Your task to perform on an android device: set the timer Image 0: 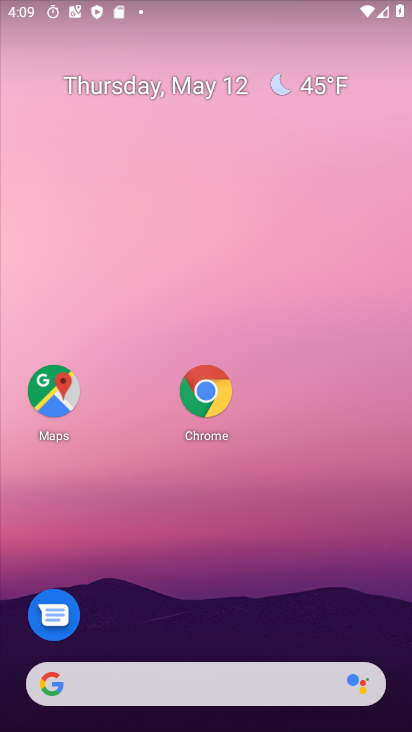
Step 0: drag from (217, 621) to (216, 82)
Your task to perform on an android device: set the timer Image 1: 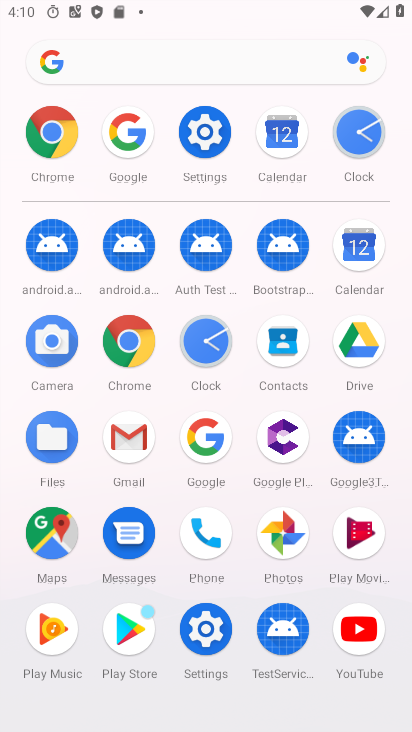
Step 1: click (362, 138)
Your task to perform on an android device: set the timer Image 2: 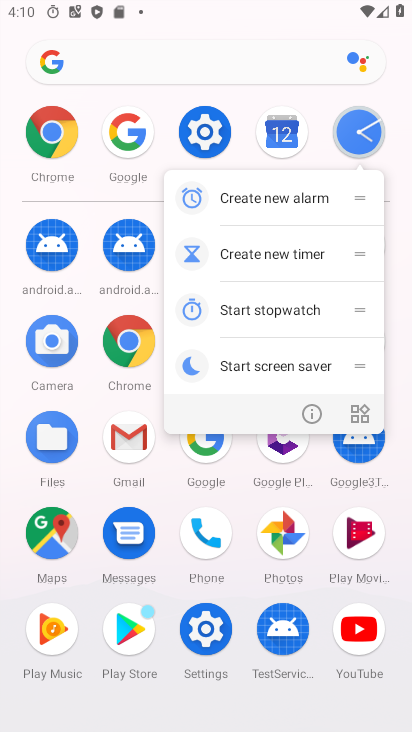
Step 2: click (358, 139)
Your task to perform on an android device: set the timer Image 3: 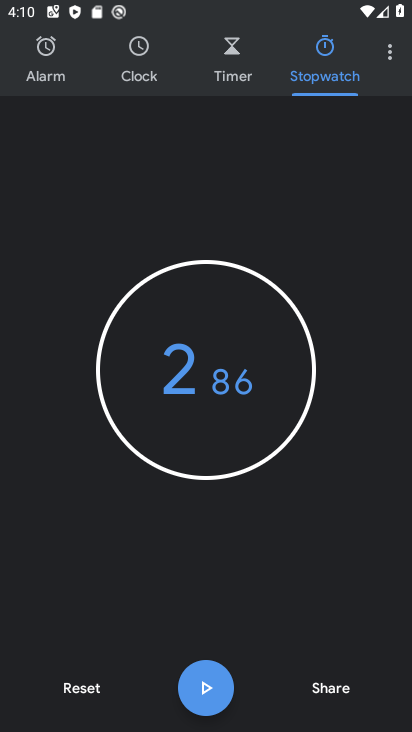
Step 3: click (244, 45)
Your task to perform on an android device: set the timer Image 4: 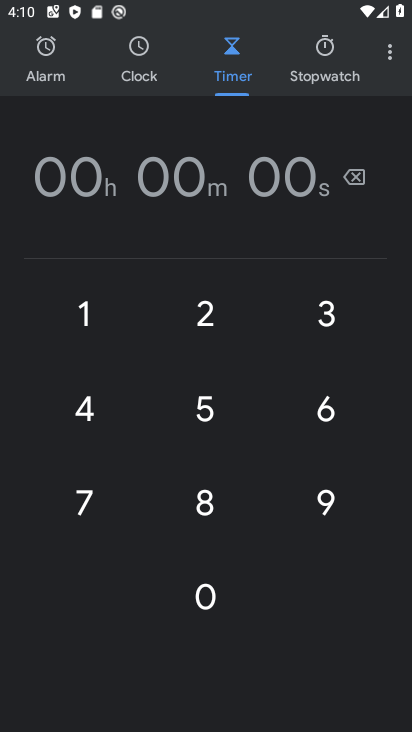
Step 4: click (207, 316)
Your task to perform on an android device: set the timer Image 5: 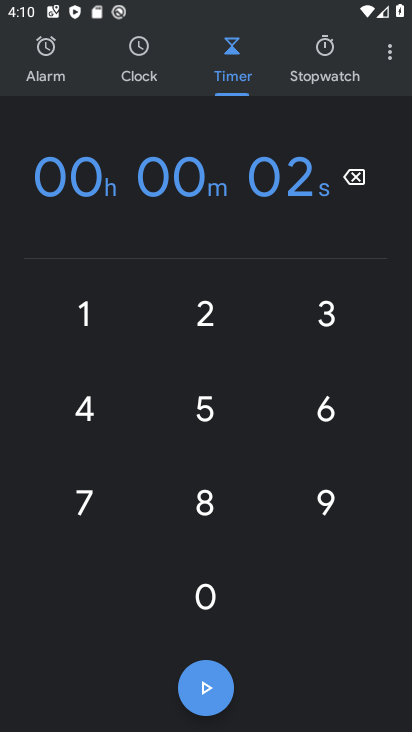
Step 5: task complete